Your task to perform on an android device: toggle wifi Image 0: 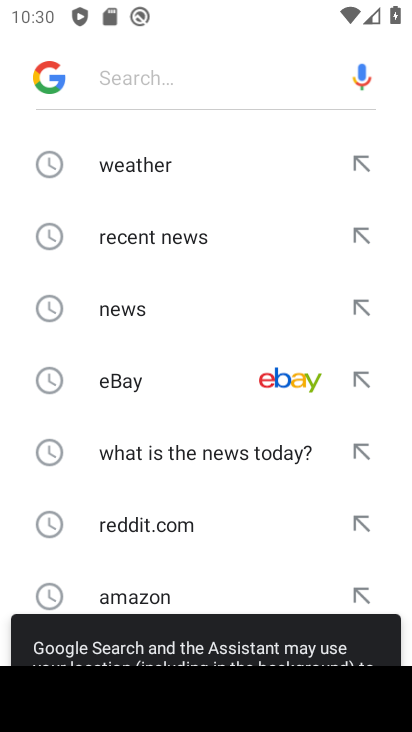
Step 0: press back button
Your task to perform on an android device: toggle wifi Image 1: 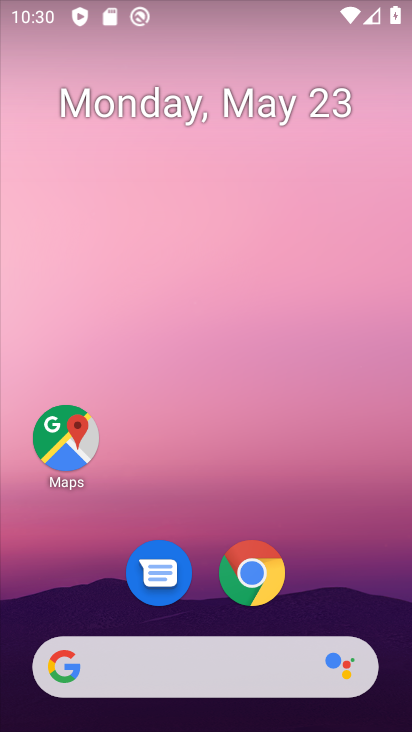
Step 1: drag from (91, 489) to (194, 142)
Your task to perform on an android device: toggle wifi Image 2: 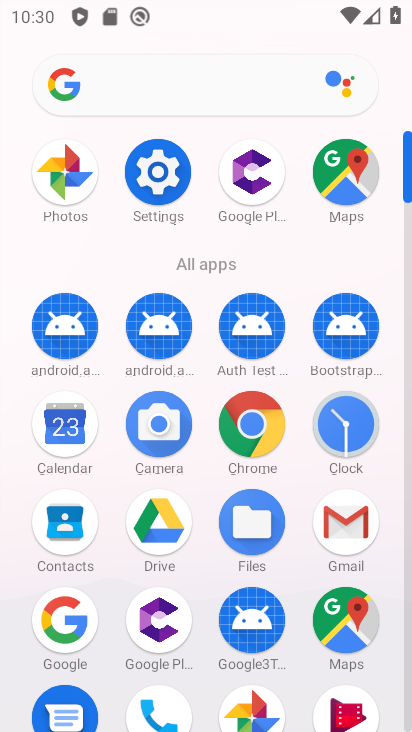
Step 2: drag from (163, 674) to (208, 341)
Your task to perform on an android device: toggle wifi Image 3: 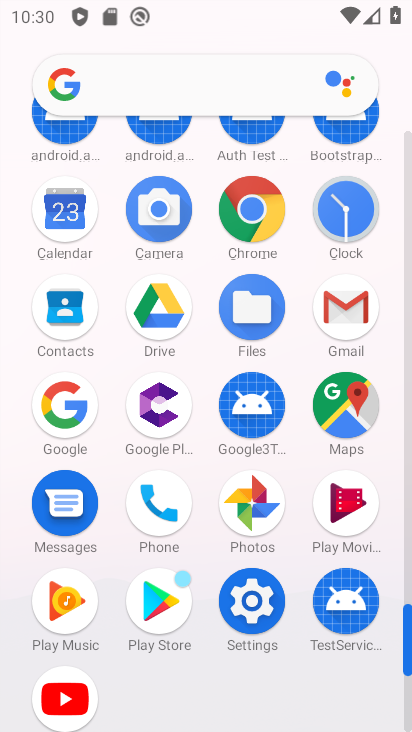
Step 3: drag from (206, 672) to (245, 421)
Your task to perform on an android device: toggle wifi Image 4: 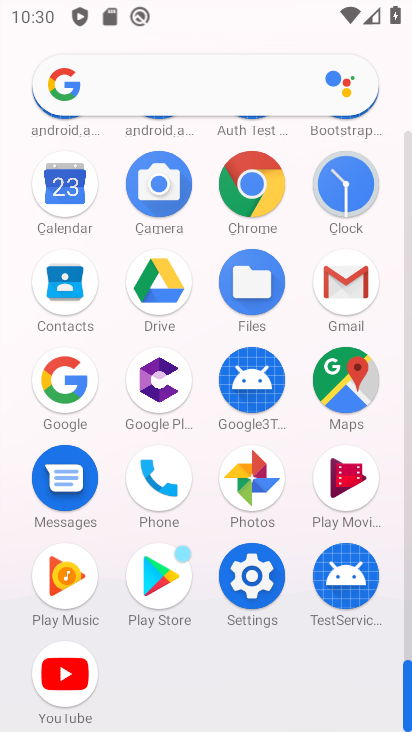
Step 4: click (253, 598)
Your task to perform on an android device: toggle wifi Image 5: 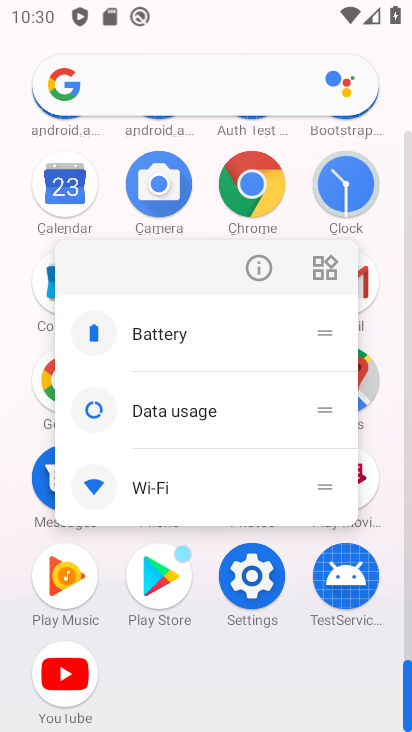
Step 5: click (281, 566)
Your task to perform on an android device: toggle wifi Image 6: 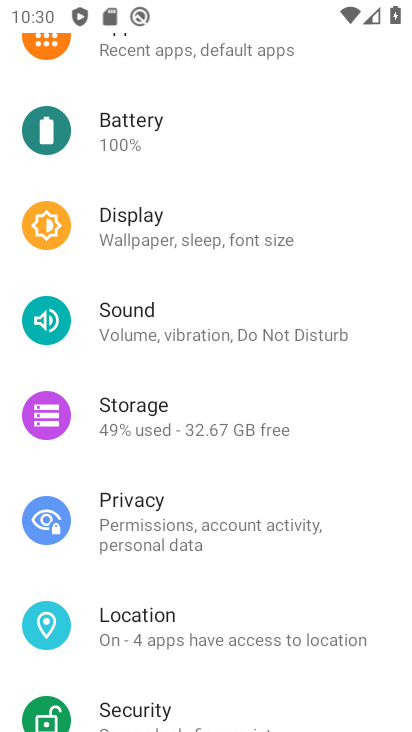
Step 6: drag from (246, 312) to (210, 653)
Your task to perform on an android device: toggle wifi Image 7: 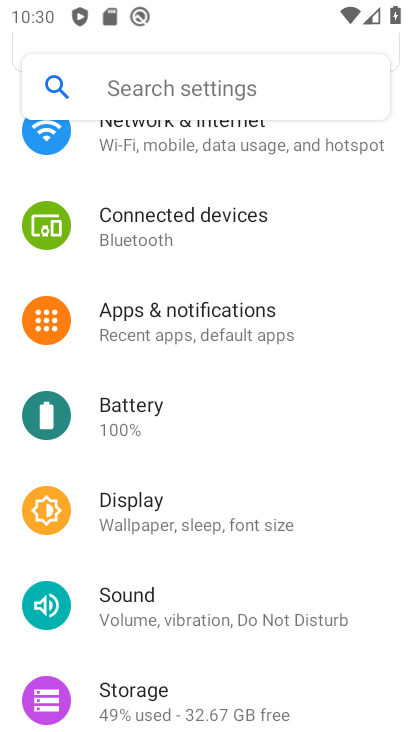
Step 7: drag from (216, 238) to (204, 635)
Your task to perform on an android device: toggle wifi Image 8: 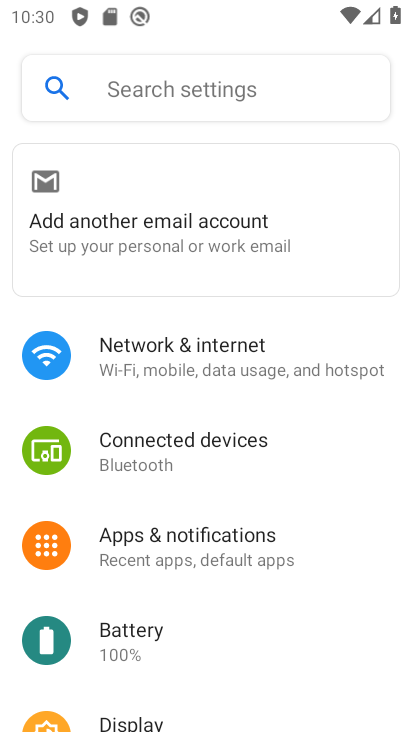
Step 8: click (233, 371)
Your task to perform on an android device: toggle wifi Image 9: 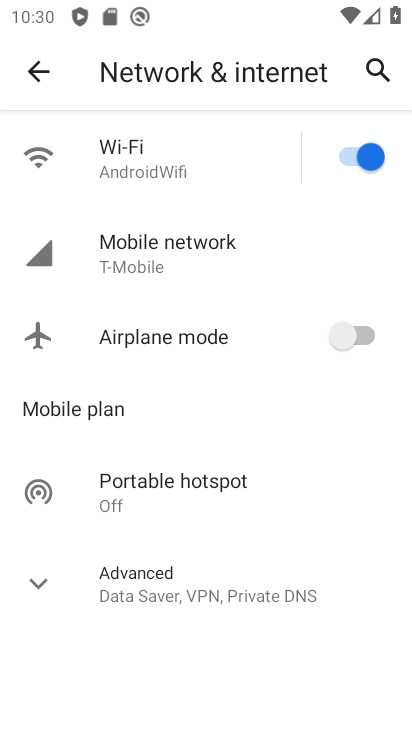
Step 9: click (339, 159)
Your task to perform on an android device: toggle wifi Image 10: 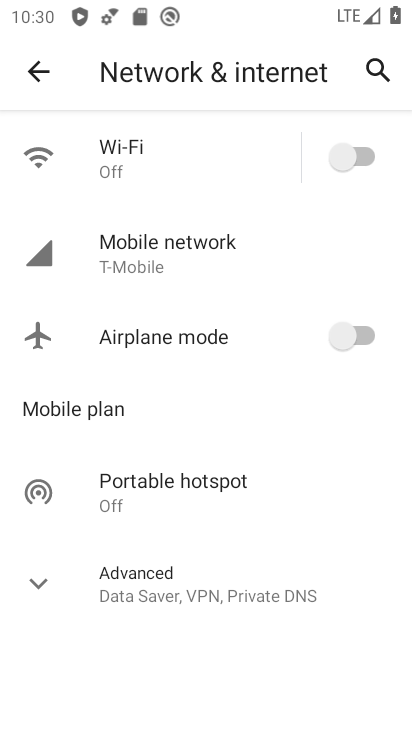
Step 10: task complete